Your task to perform on an android device: Go to Google maps Image 0: 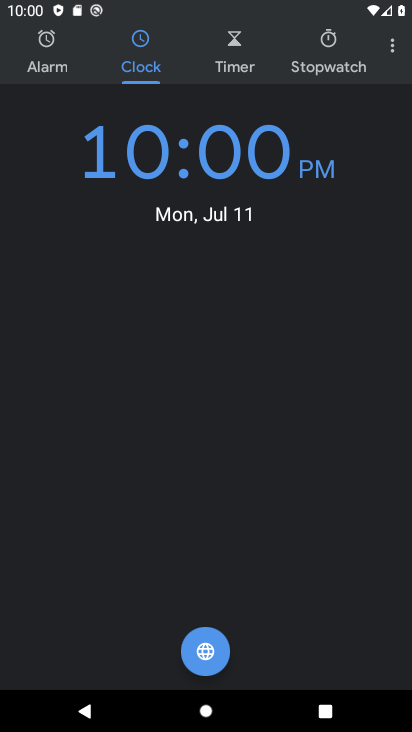
Step 0: press home button
Your task to perform on an android device: Go to Google maps Image 1: 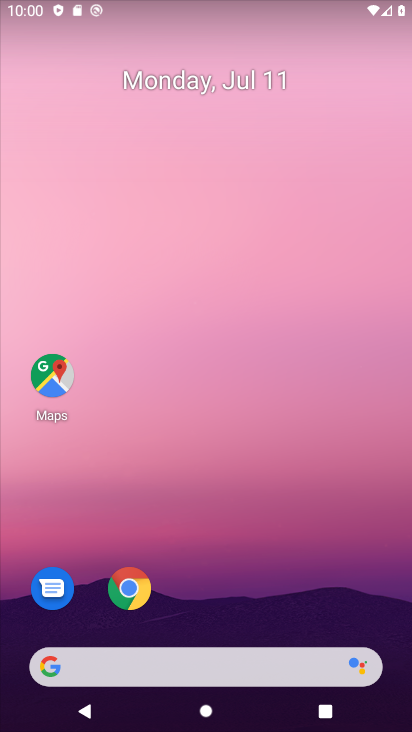
Step 1: drag from (243, 629) to (314, 98)
Your task to perform on an android device: Go to Google maps Image 2: 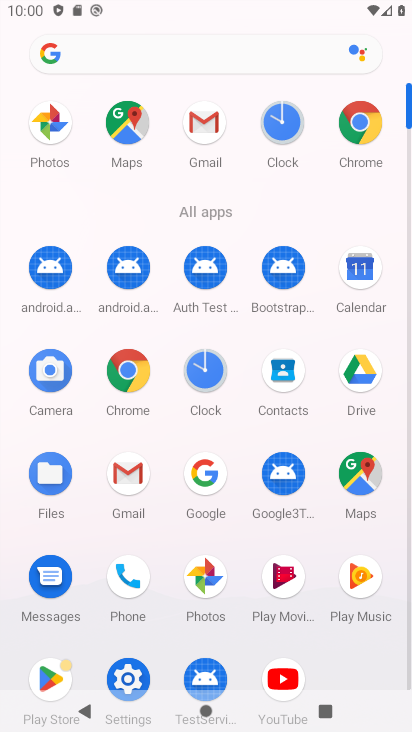
Step 2: click (353, 471)
Your task to perform on an android device: Go to Google maps Image 3: 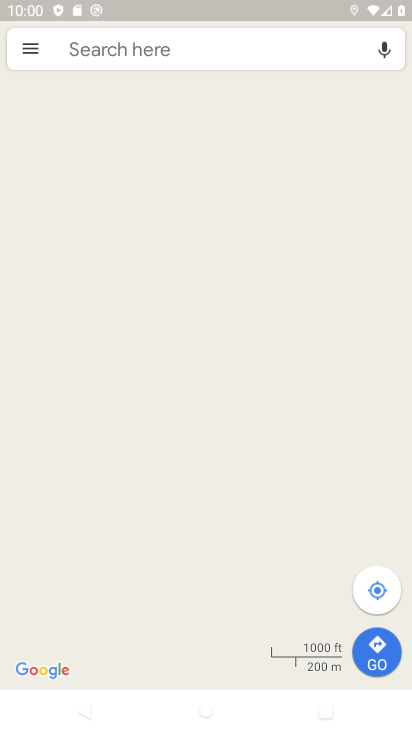
Step 3: task complete